Your task to perform on an android device: find snoozed emails in the gmail app Image 0: 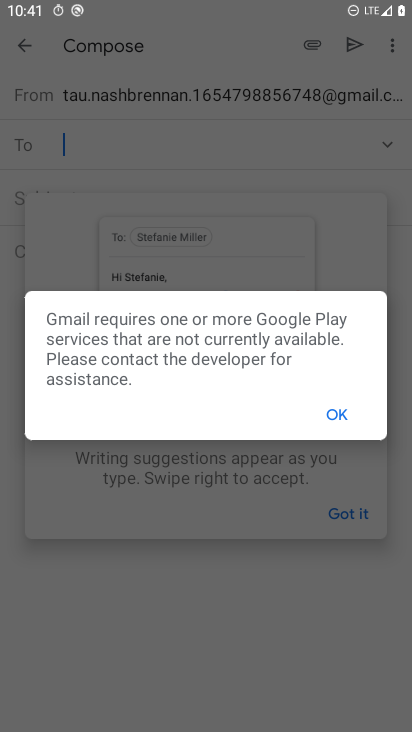
Step 0: press home button
Your task to perform on an android device: find snoozed emails in the gmail app Image 1: 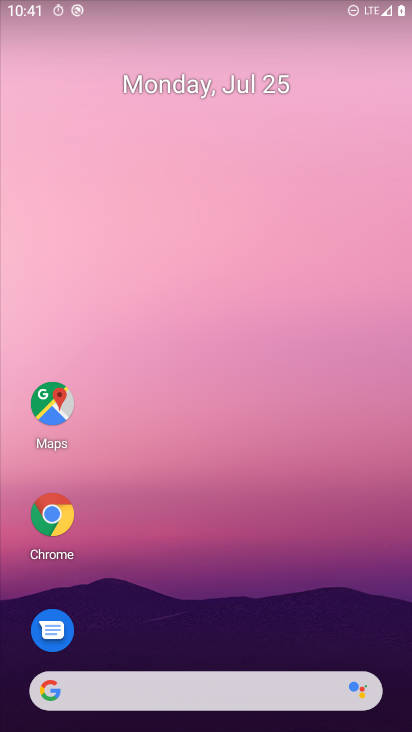
Step 1: drag from (11, 696) to (240, 279)
Your task to perform on an android device: find snoozed emails in the gmail app Image 2: 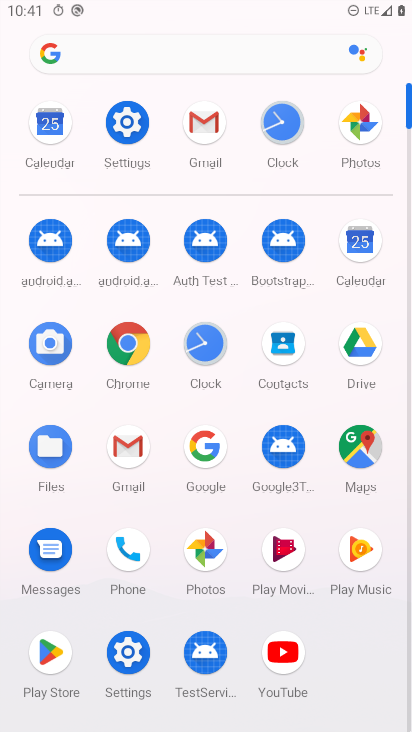
Step 2: click (119, 456)
Your task to perform on an android device: find snoozed emails in the gmail app Image 3: 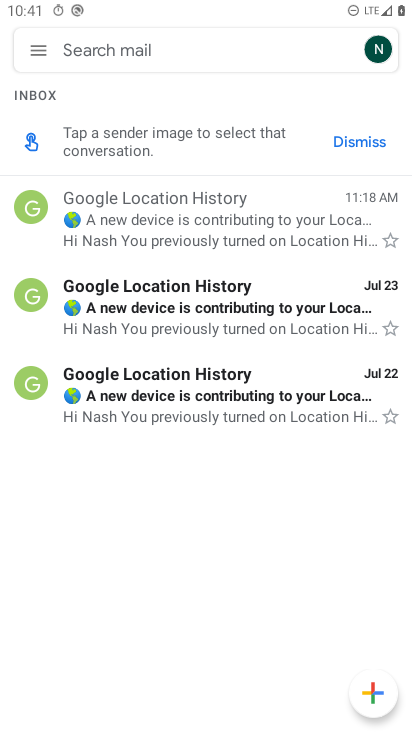
Step 3: click (37, 46)
Your task to perform on an android device: find snoozed emails in the gmail app Image 4: 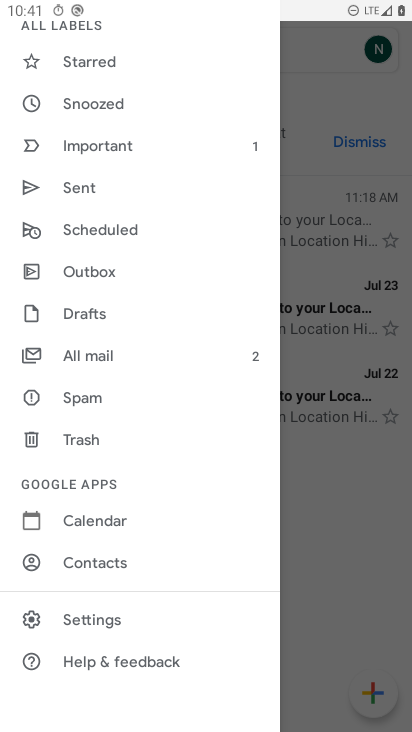
Step 4: click (134, 104)
Your task to perform on an android device: find snoozed emails in the gmail app Image 5: 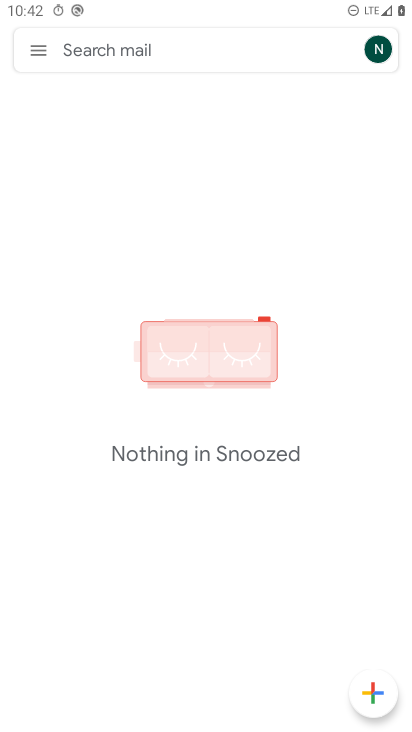
Step 5: task complete